Your task to perform on an android device: open app "Firefox Browser" (install if not already installed) and enter user name: "hashed@outlook.com" and password: "congestive" Image 0: 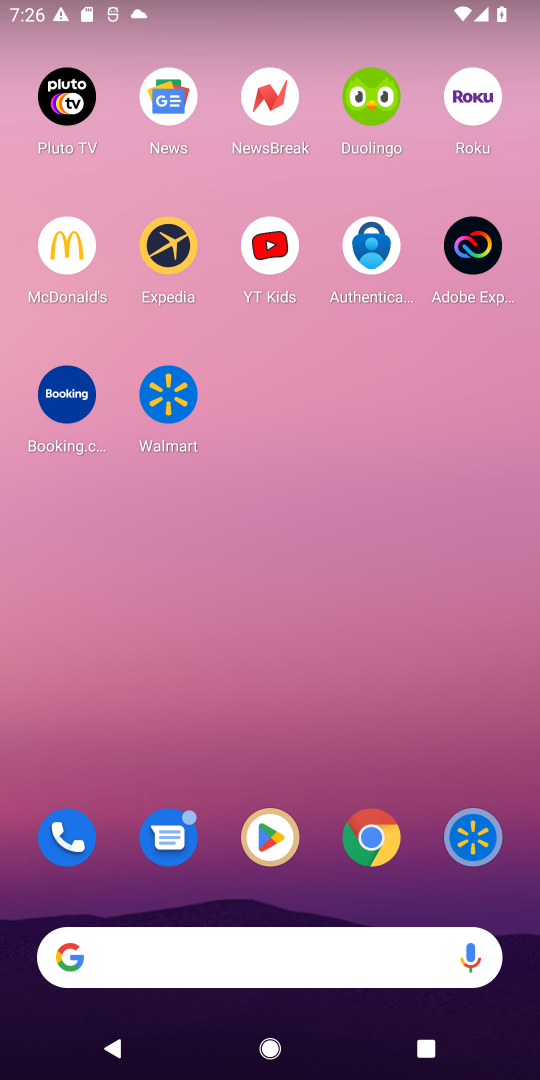
Step 0: click (277, 846)
Your task to perform on an android device: open app "Firefox Browser" (install if not already installed) and enter user name: "hashed@outlook.com" and password: "congestive" Image 1: 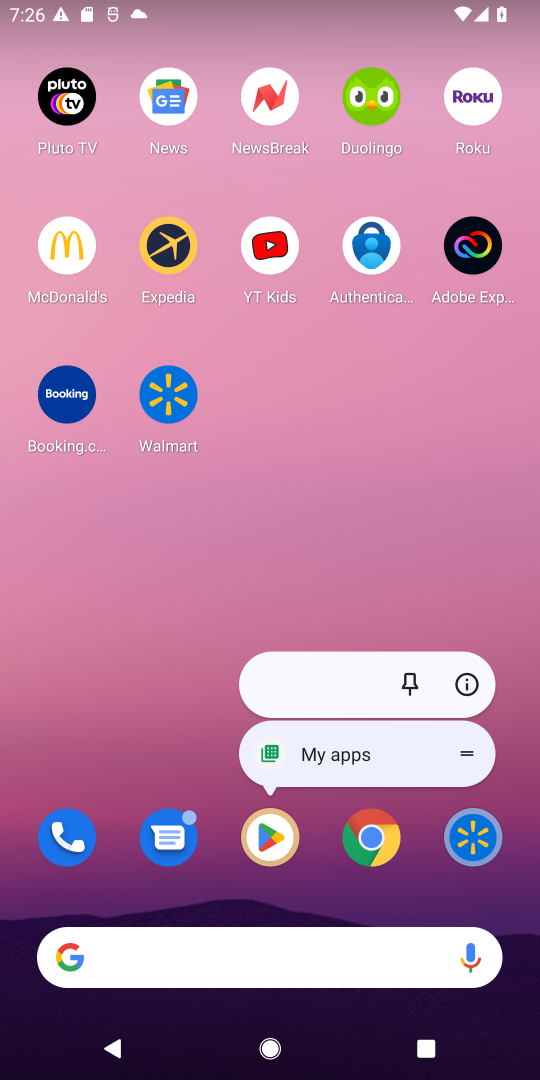
Step 1: click (277, 846)
Your task to perform on an android device: open app "Firefox Browser" (install if not already installed) and enter user name: "hashed@outlook.com" and password: "congestive" Image 2: 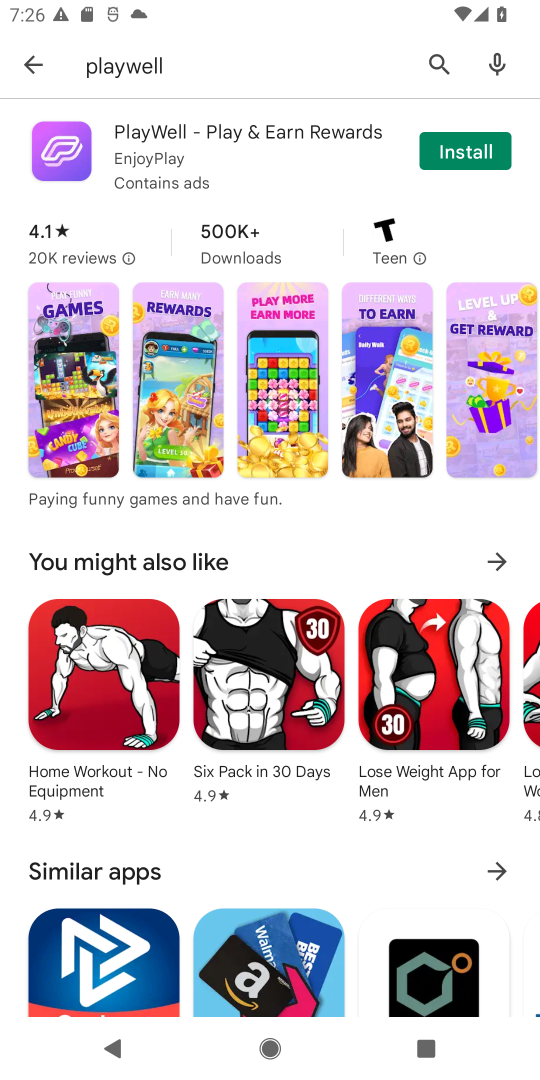
Step 2: click (202, 72)
Your task to perform on an android device: open app "Firefox Browser" (install if not already installed) and enter user name: "hashed@outlook.com" and password: "congestive" Image 3: 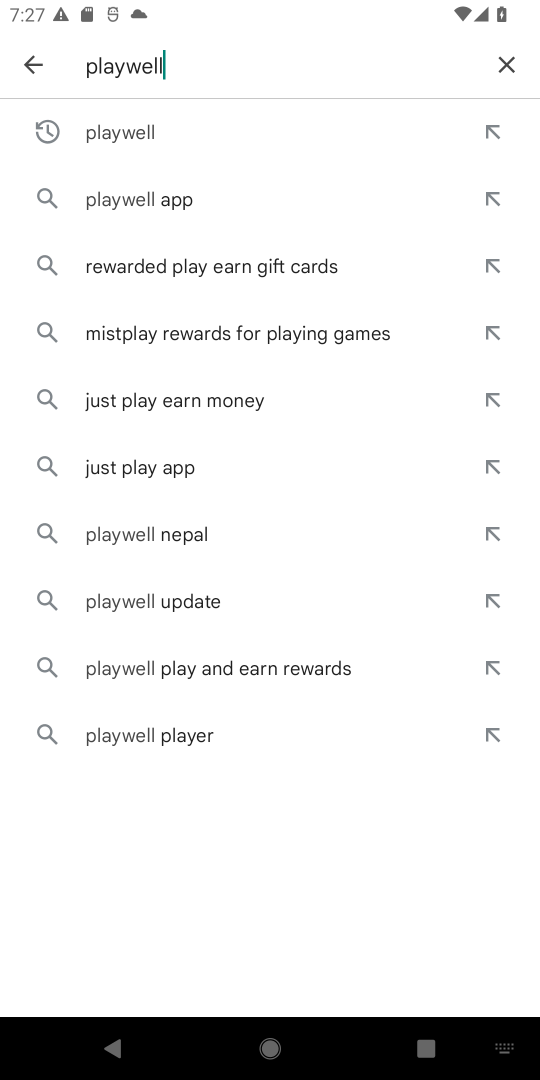
Step 3: click (514, 64)
Your task to perform on an android device: open app "Firefox Browser" (install if not already installed) and enter user name: "hashed@outlook.com" and password: "congestive" Image 4: 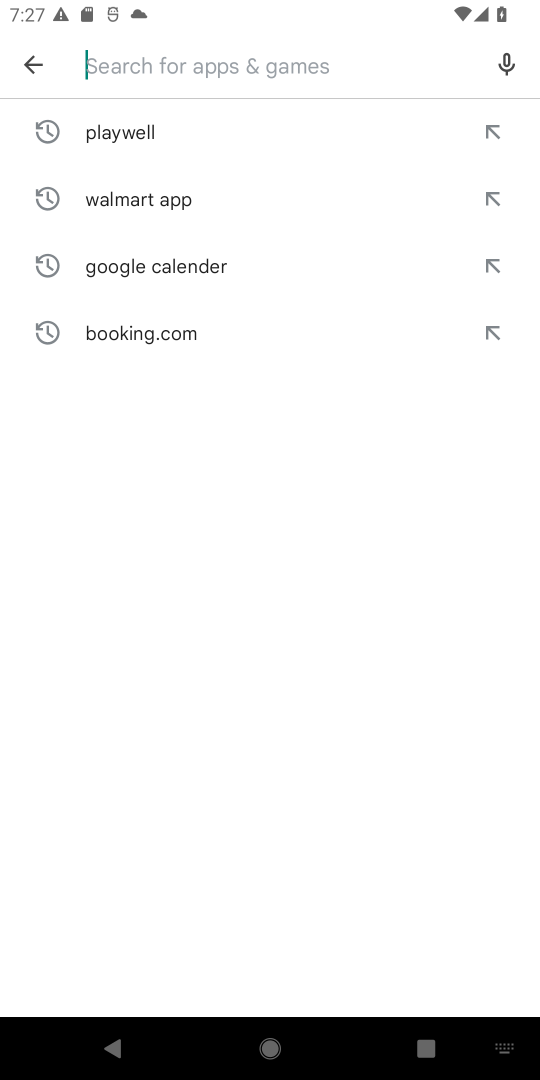
Step 4: type ""
Your task to perform on an android device: open app "Firefox Browser" (install if not already installed) and enter user name: "hashed@outlook.com" and password: "congestive" Image 5: 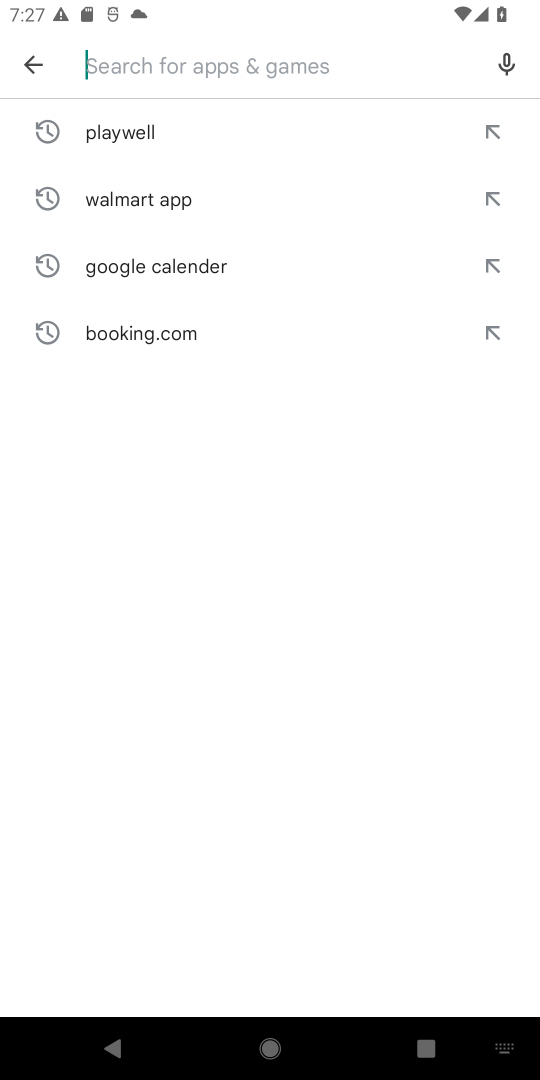
Step 5: type "firefox browser"
Your task to perform on an android device: open app "Firefox Browser" (install if not already installed) and enter user name: "hashed@outlook.com" and password: "congestive" Image 6: 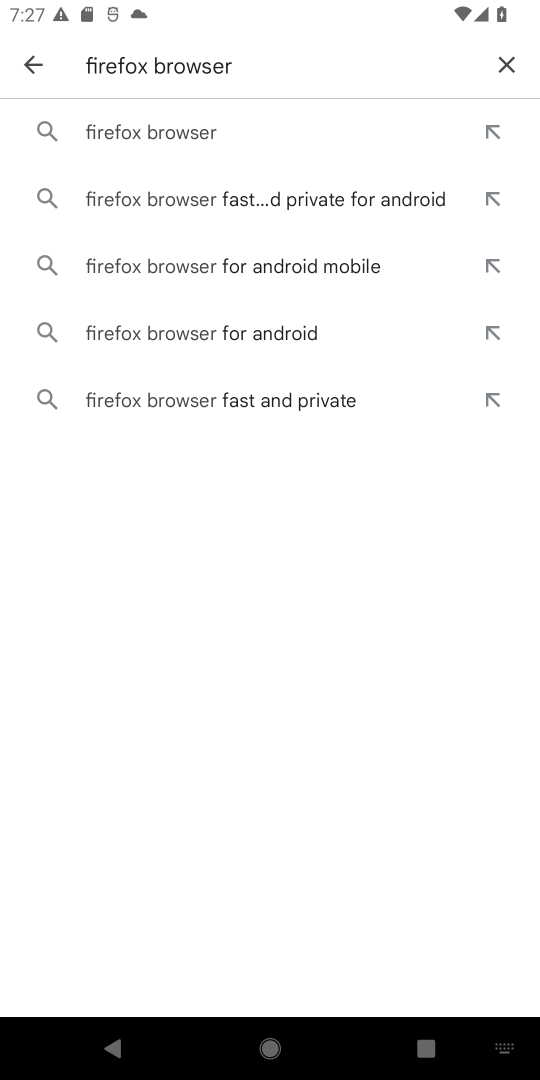
Step 6: click (206, 139)
Your task to perform on an android device: open app "Firefox Browser" (install if not already installed) and enter user name: "hashed@outlook.com" and password: "congestive" Image 7: 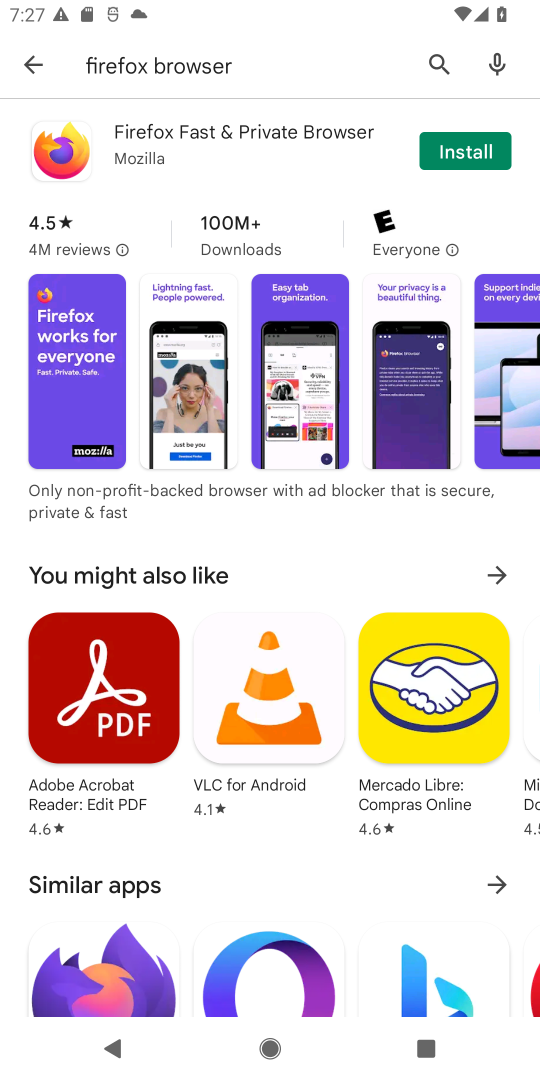
Step 7: click (482, 158)
Your task to perform on an android device: open app "Firefox Browser" (install if not already installed) and enter user name: "hashed@outlook.com" and password: "congestive" Image 8: 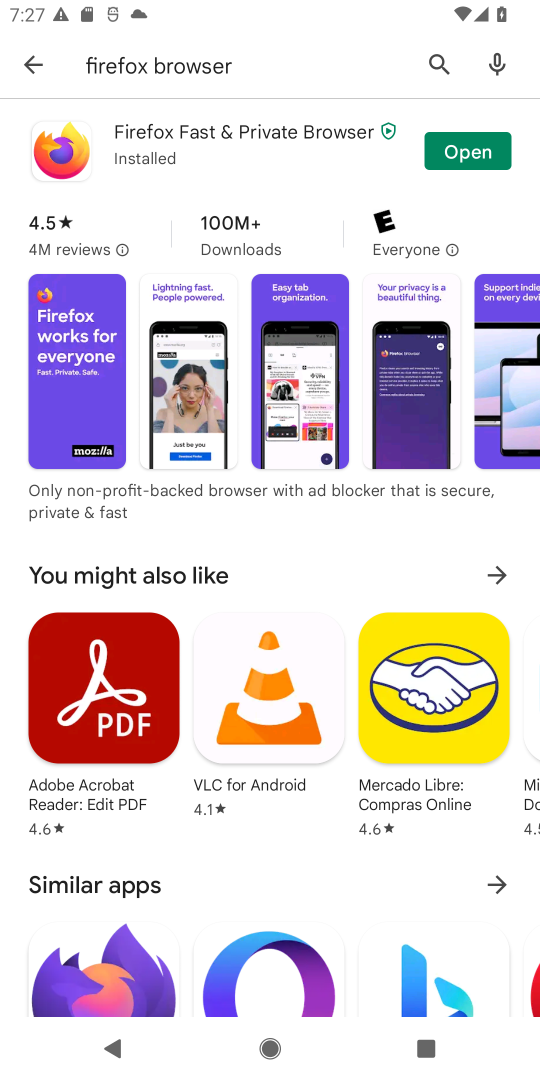
Step 8: click (477, 155)
Your task to perform on an android device: open app "Firefox Browser" (install if not already installed) and enter user name: "hashed@outlook.com" and password: "congestive" Image 9: 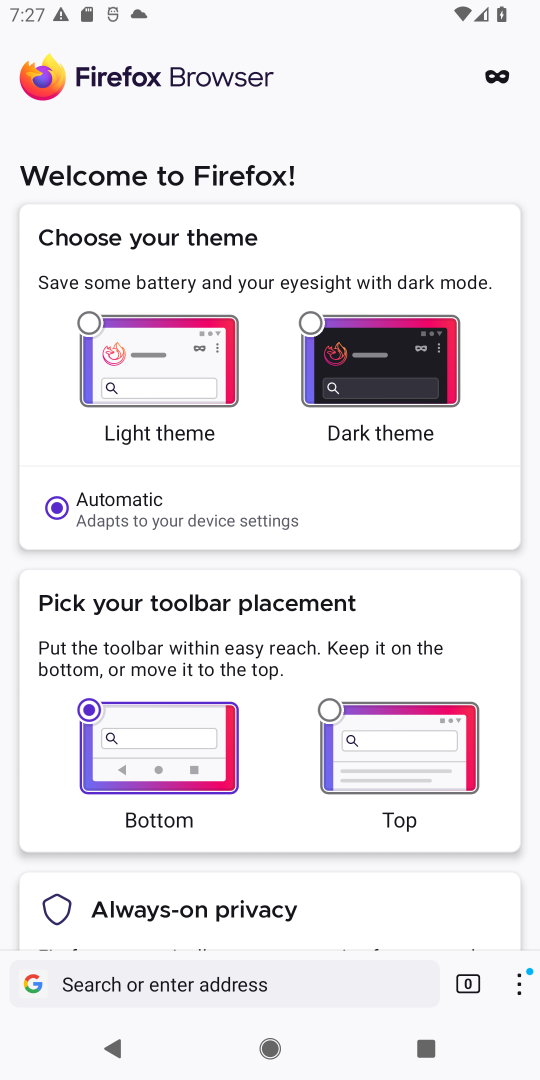
Step 9: drag from (219, 831) to (335, 315)
Your task to perform on an android device: open app "Firefox Browser" (install if not already installed) and enter user name: "hashed@outlook.com" and password: "congestive" Image 10: 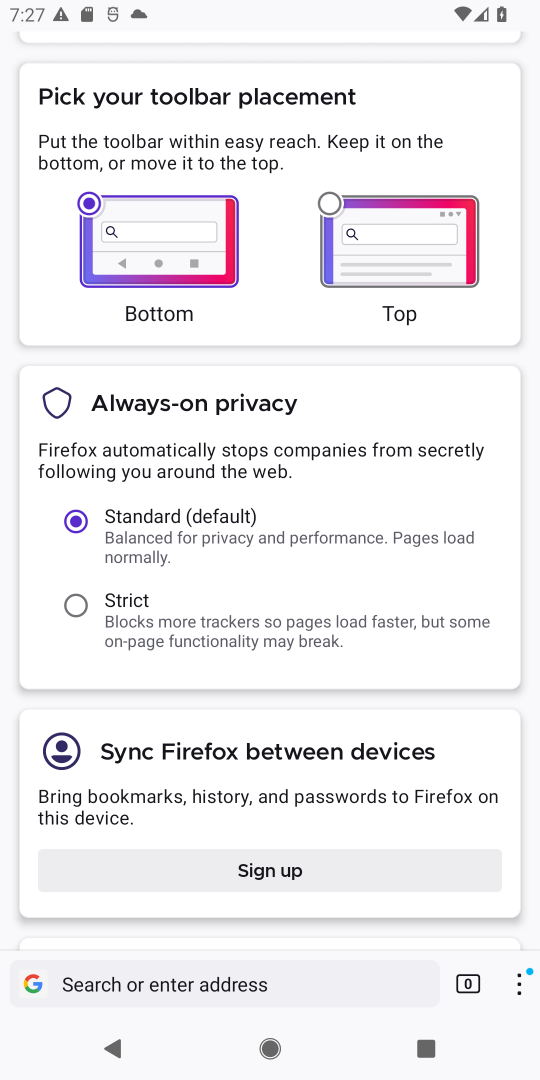
Step 10: click (326, 868)
Your task to perform on an android device: open app "Firefox Browser" (install if not already installed) and enter user name: "hashed@outlook.com" and password: "congestive" Image 11: 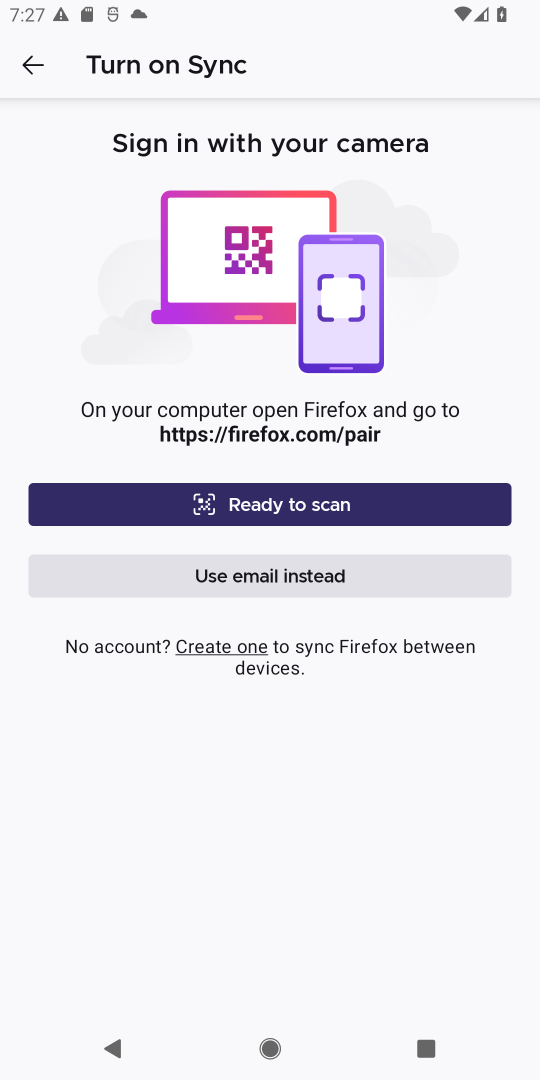
Step 11: click (287, 567)
Your task to perform on an android device: open app "Firefox Browser" (install if not already installed) and enter user name: "hashed@outlook.com" and password: "congestive" Image 12: 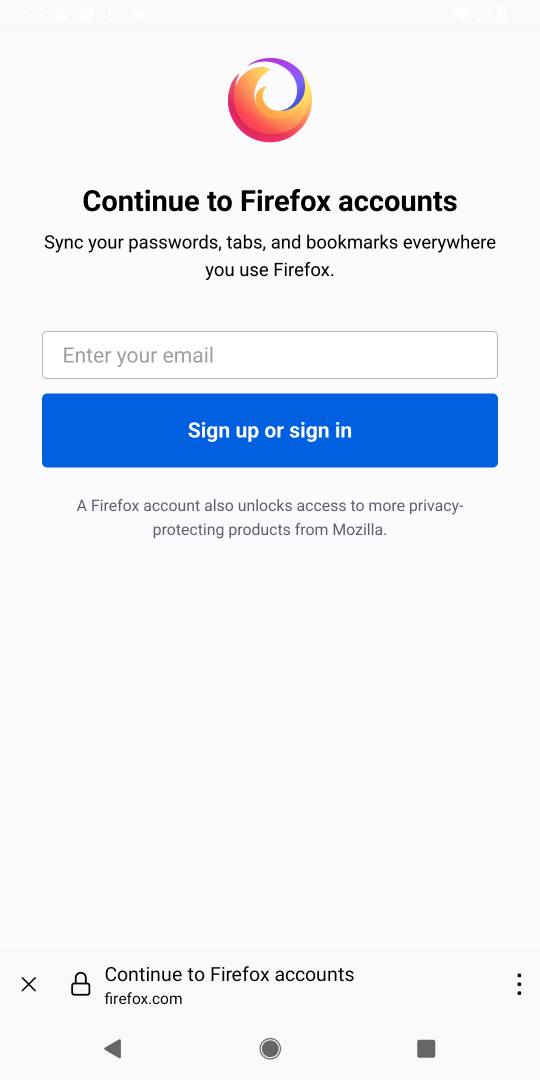
Step 12: click (312, 353)
Your task to perform on an android device: open app "Firefox Browser" (install if not already installed) and enter user name: "hashed@outlook.com" and password: "congestive" Image 13: 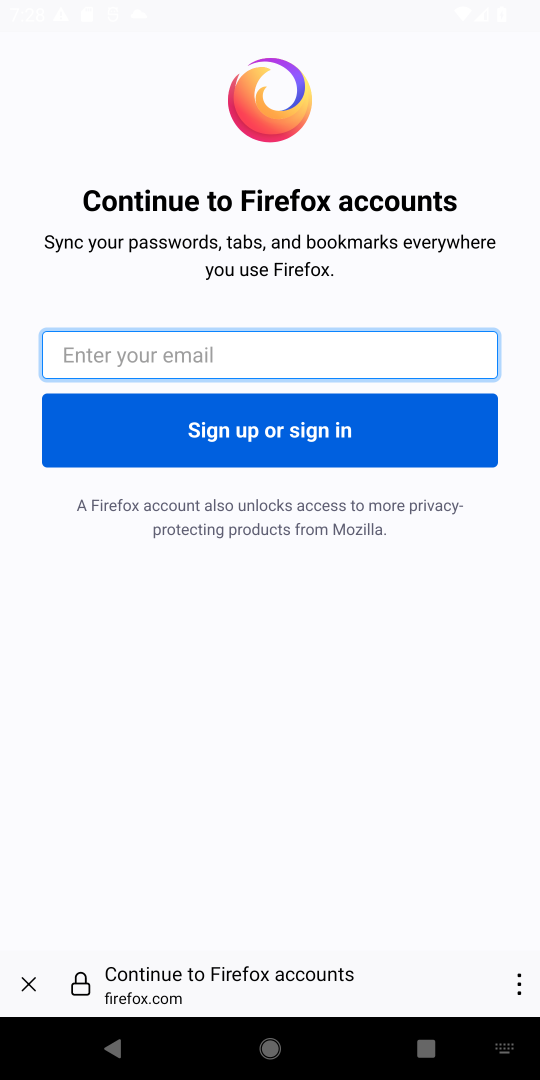
Step 13: type "hashed@outlook.com"
Your task to perform on an android device: open app "Firefox Browser" (install if not already installed) and enter user name: "hashed@outlook.com" and password: "congestive" Image 14: 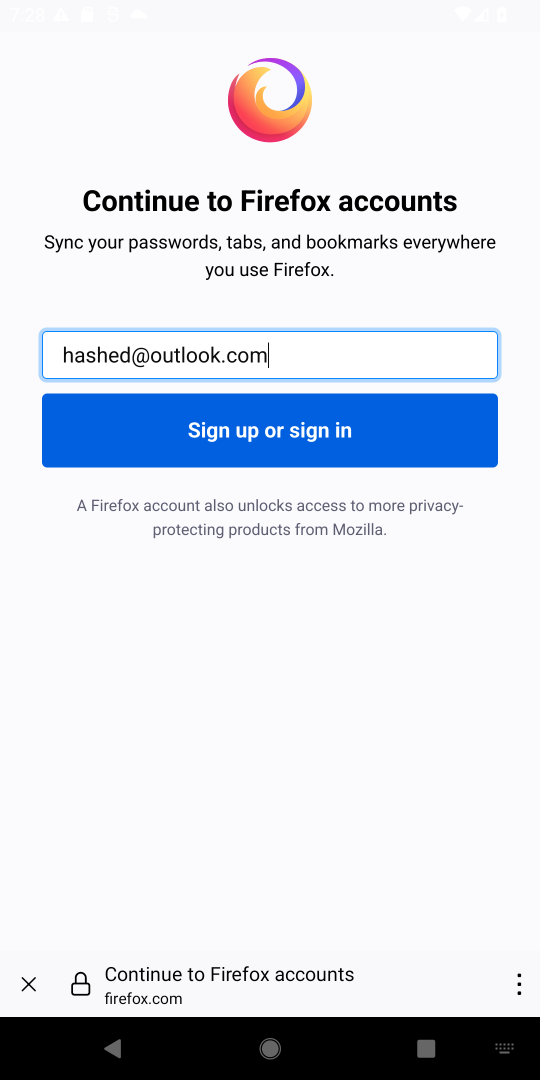
Step 14: click (309, 444)
Your task to perform on an android device: open app "Firefox Browser" (install if not already installed) and enter user name: "hashed@outlook.com" and password: "congestive" Image 15: 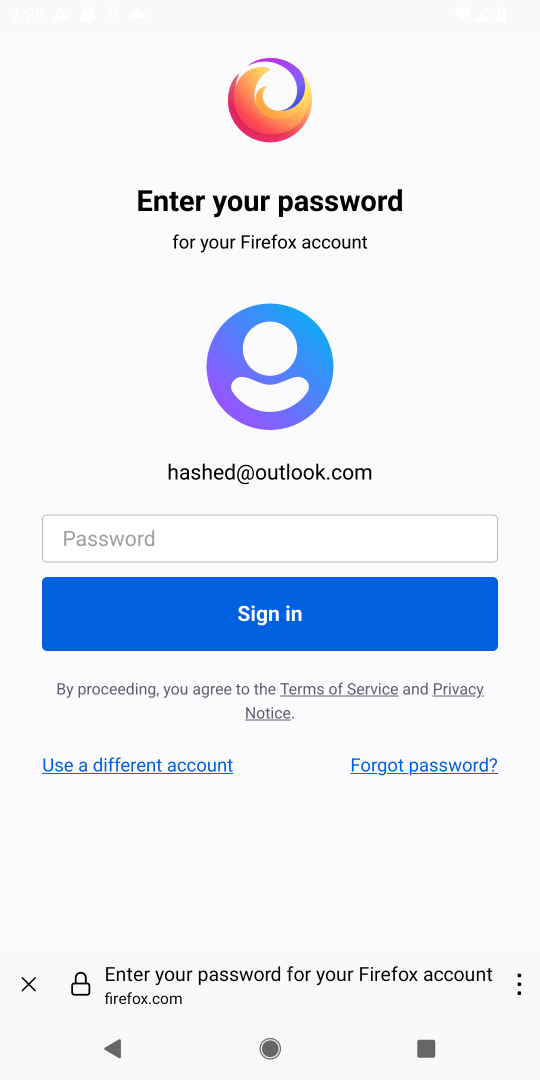
Step 15: click (219, 538)
Your task to perform on an android device: open app "Firefox Browser" (install if not already installed) and enter user name: "hashed@outlook.com" and password: "congestive" Image 16: 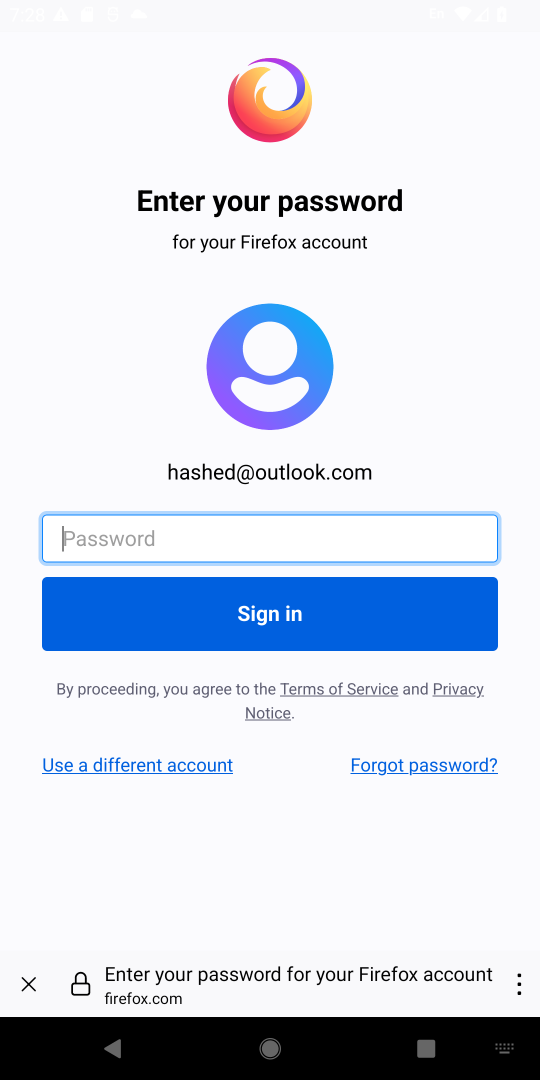
Step 16: type "congestive"
Your task to perform on an android device: open app "Firefox Browser" (install if not already installed) and enter user name: "hashed@outlook.com" and password: "congestive" Image 17: 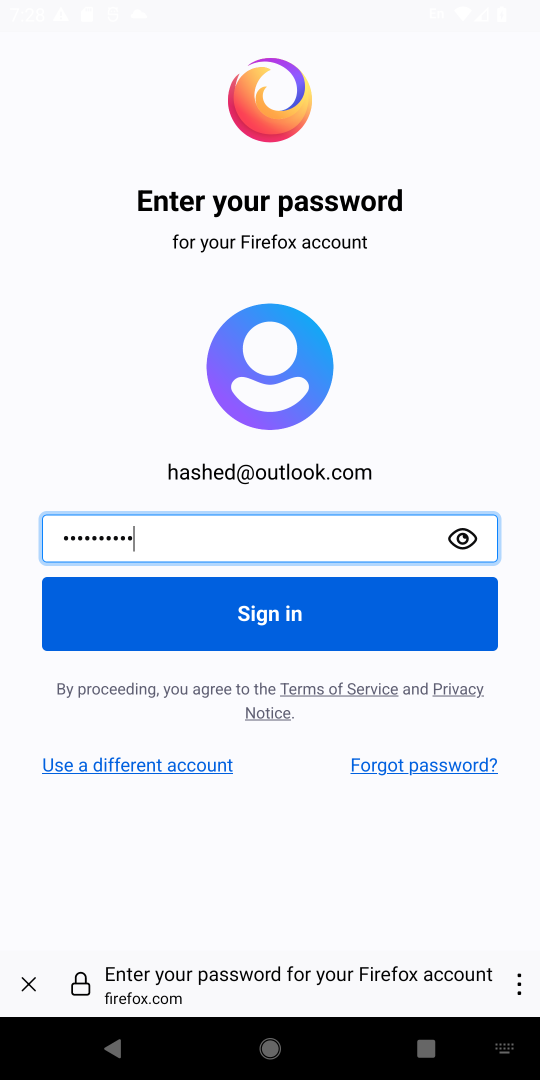
Step 17: click (263, 623)
Your task to perform on an android device: open app "Firefox Browser" (install if not already installed) and enter user name: "hashed@outlook.com" and password: "congestive" Image 18: 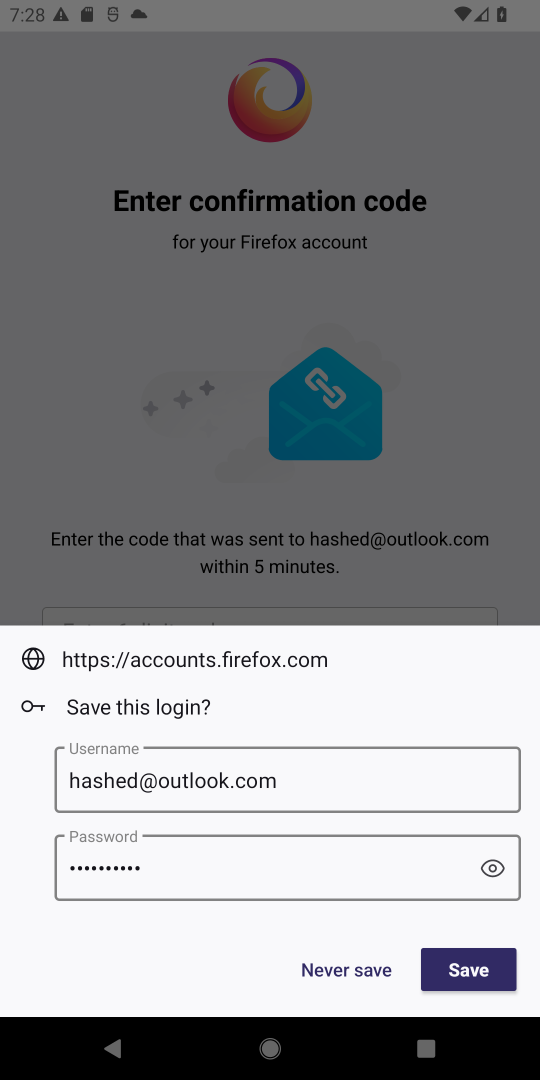
Step 18: click (329, 954)
Your task to perform on an android device: open app "Firefox Browser" (install if not already installed) and enter user name: "hashed@outlook.com" and password: "congestive" Image 19: 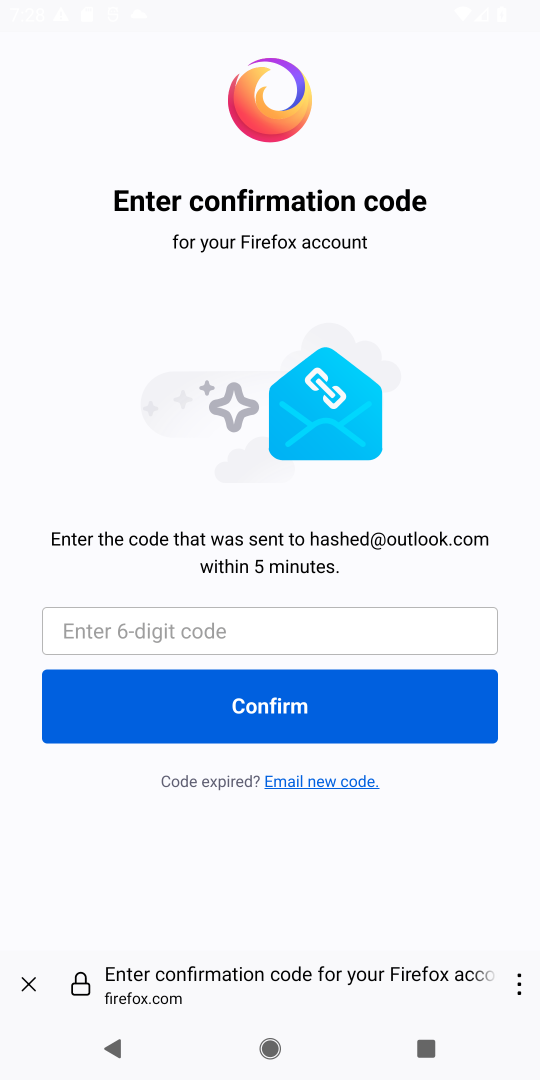
Step 19: task complete